Your task to perform on an android device: choose inbox layout in the gmail app Image 0: 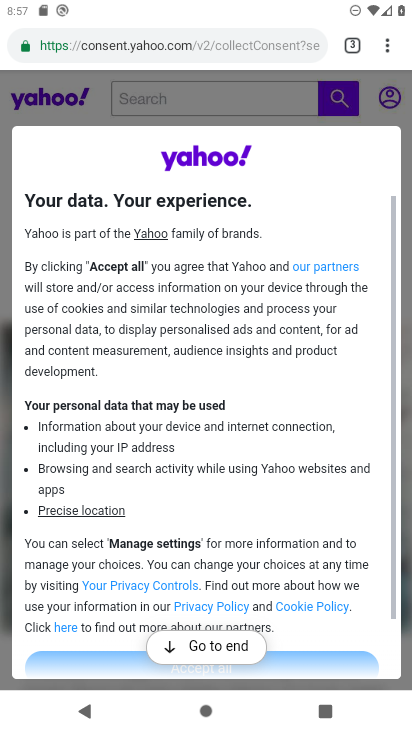
Step 0: press home button
Your task to perform on an android device: choose inbox layout in the gmail app Image 1: 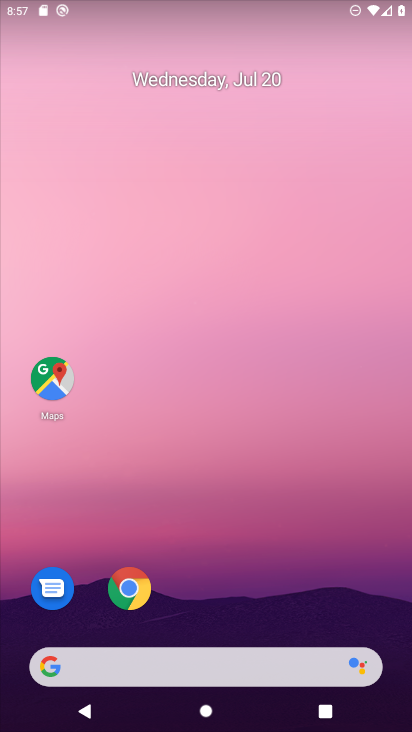
Step 1: drag from (211, 616) to (241, 53)
Your task to perform on an android device: choose inbox layout in the gmail app Image 2: 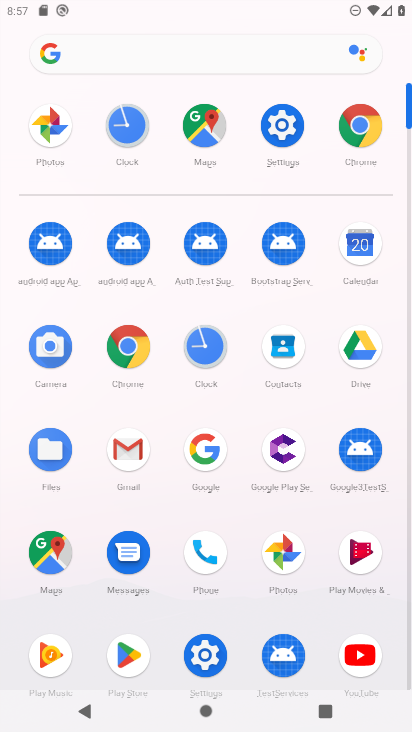
Step 2: click (136, 463)
Your task to perform on an android device: choose inbox layout in the gmail app Image 3: 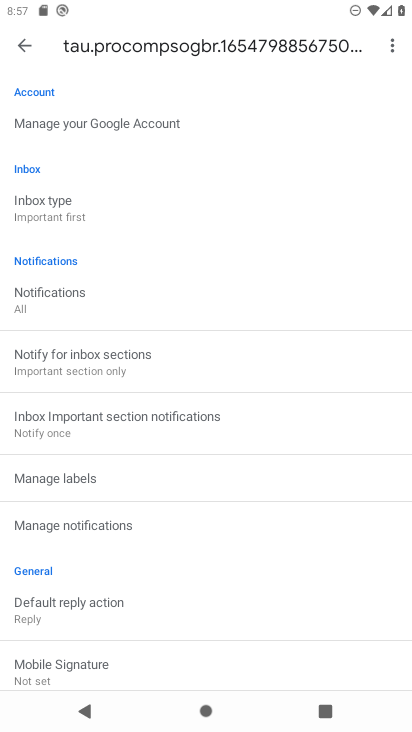
Step 3: click (50, 212)
Your task to perform on an android device: choose inbox layout in the gmail app Image 4: 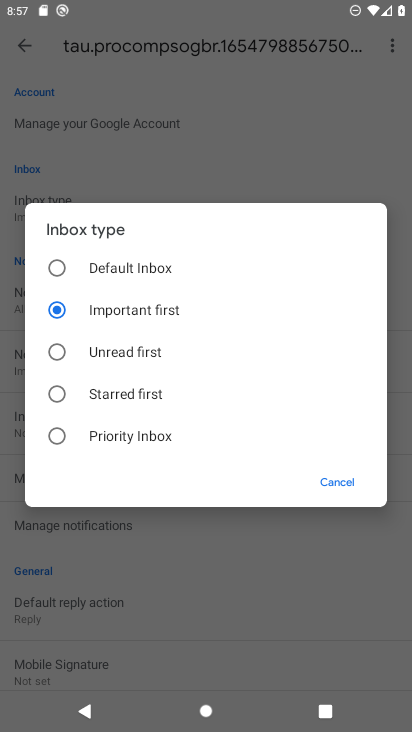
Step 4: click (129, 436)
Your task to perform on an android device: choose inbox layout in the gmail app Image 5: 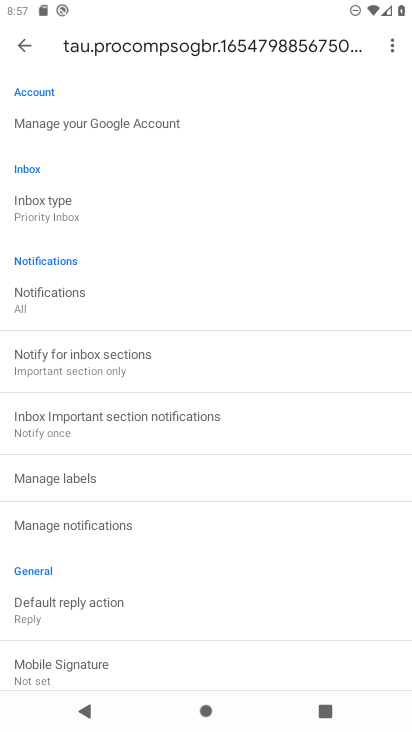
Step 5: task complete